Your task to perform on an android device: install app "DoorDash - Food Delivery" Image 0: 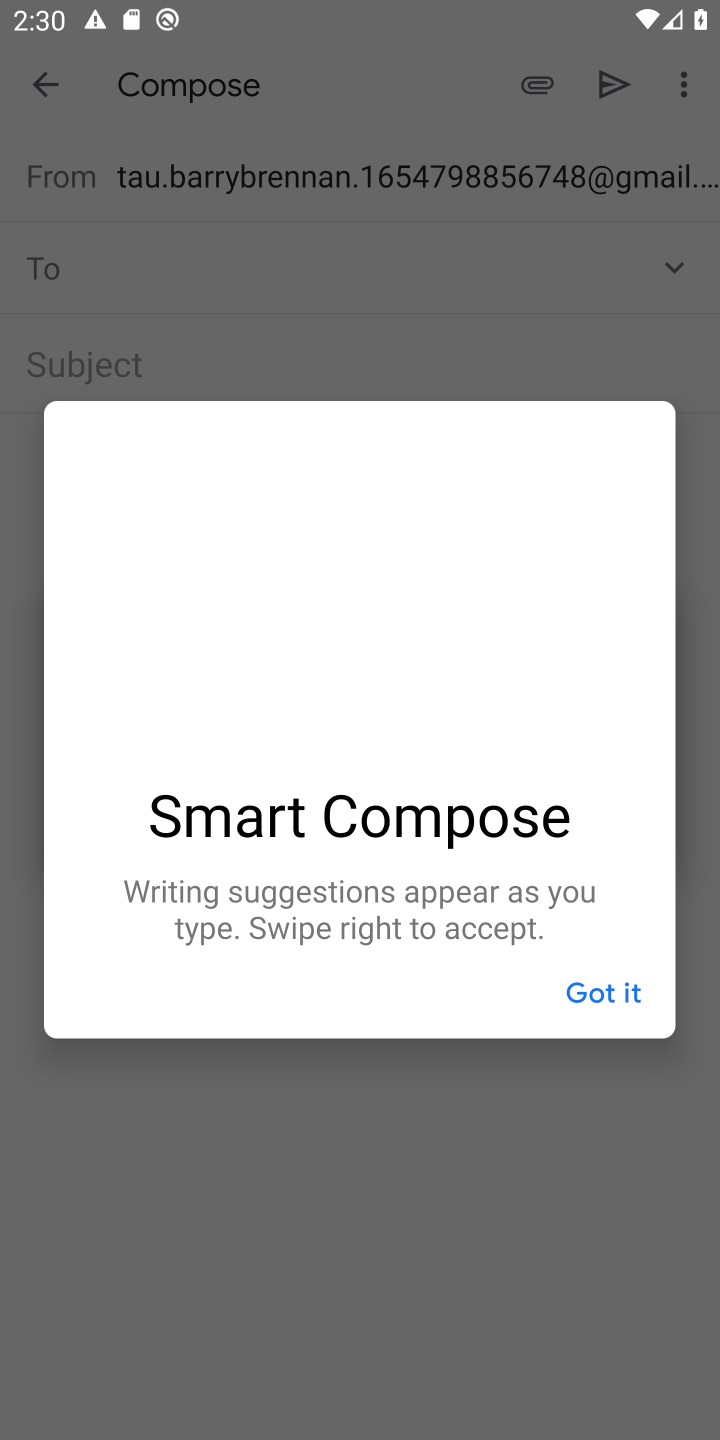
Step 0: press home button
Your task to perform on an android device: install app "DoorDash - Food Delivery" Image 1: 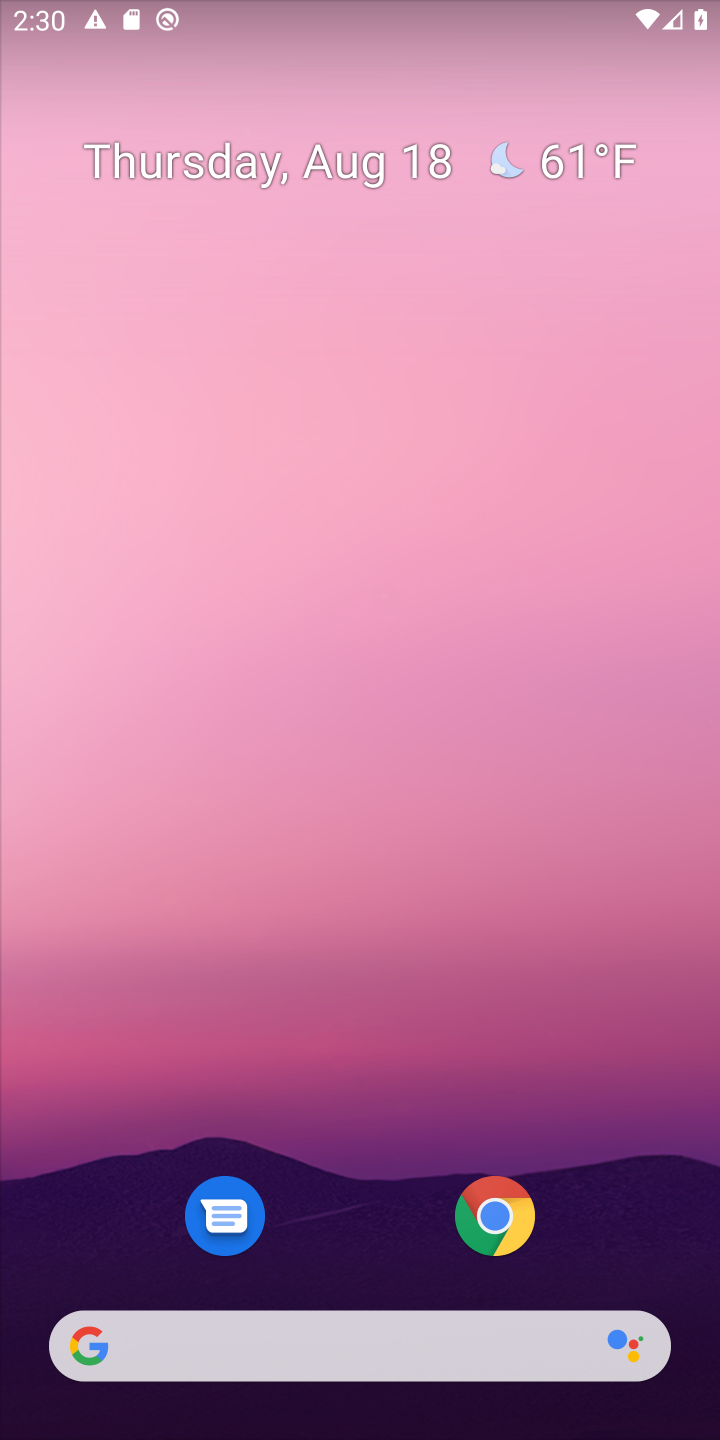
Step 1: drag from (637, 1264) to (594, 217)
Your task to perform on an android device: install app "DoorDash - Food Delivery" Image 2: 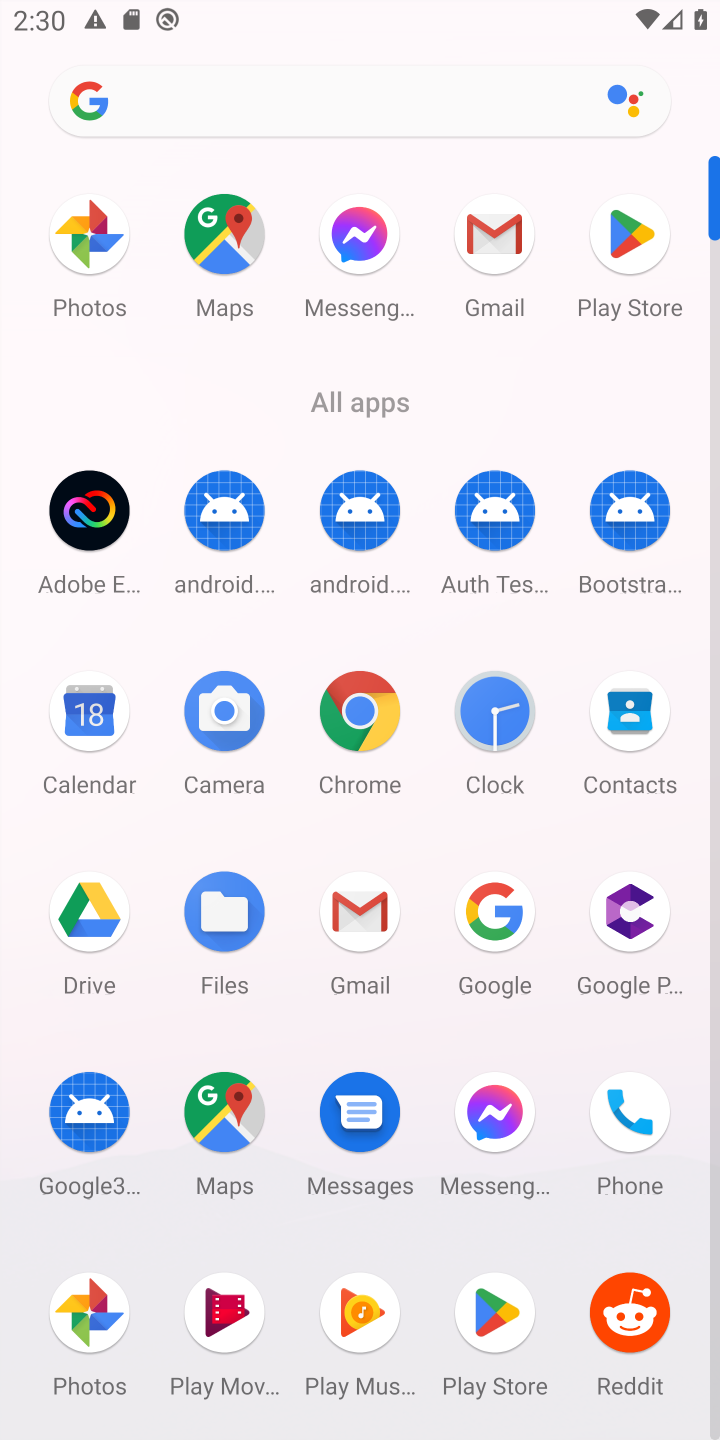
Step 2: click (497, 1310)
Your task to perform on an android device: install app "DoorDash - Food Delivery" Image 3: 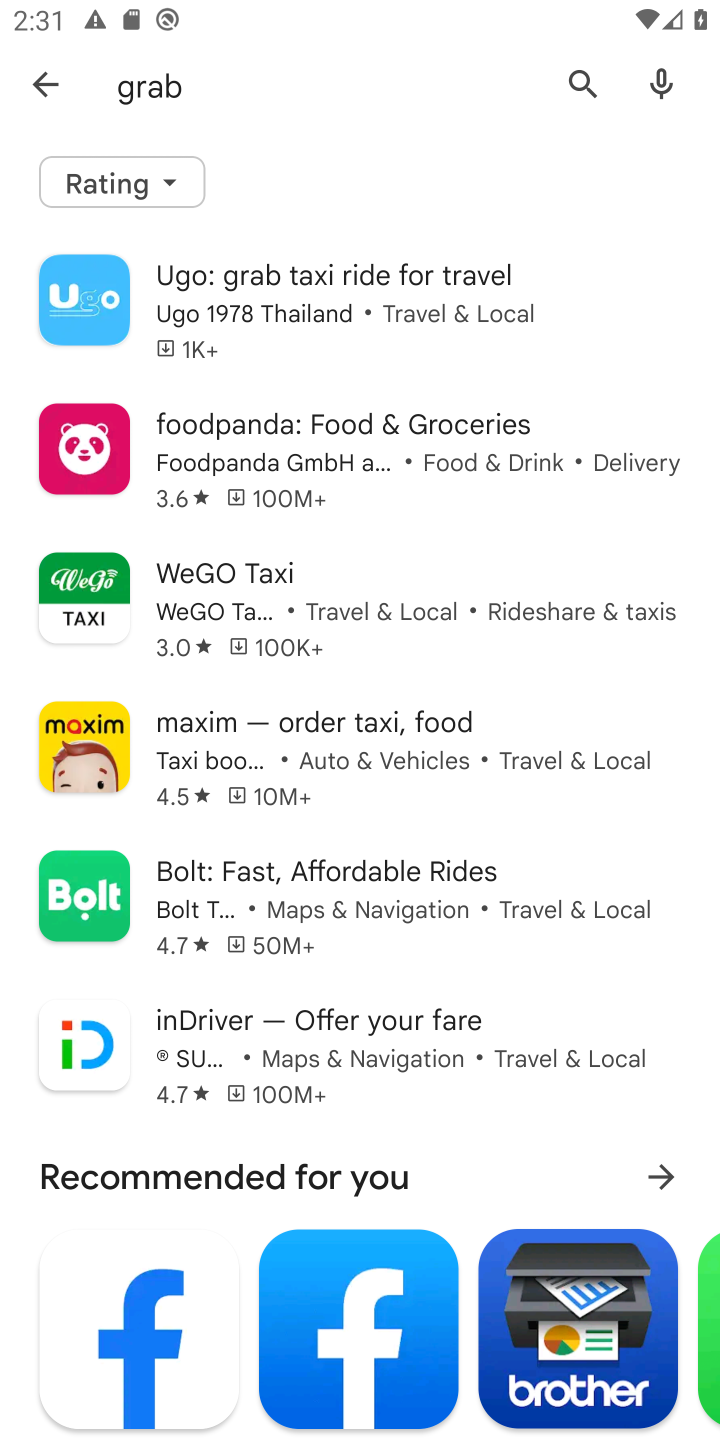
Step 3: click (567, 72)
Your task to perform on an android device: install app "DoorDash - Food Delivery" Image 4: 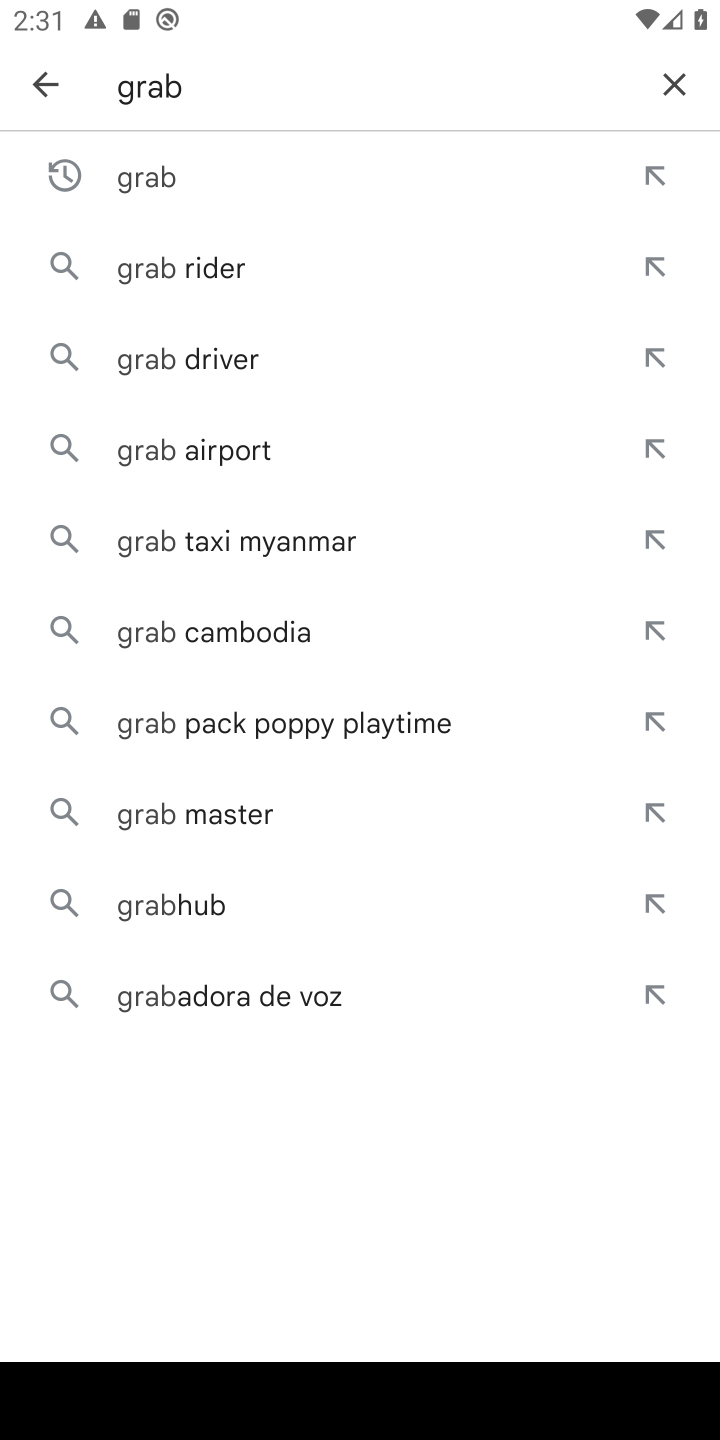
Step 4: click (677, 83)
Your task to perform on an android device: install app "DoorDash - Food Delivery" Image 5: 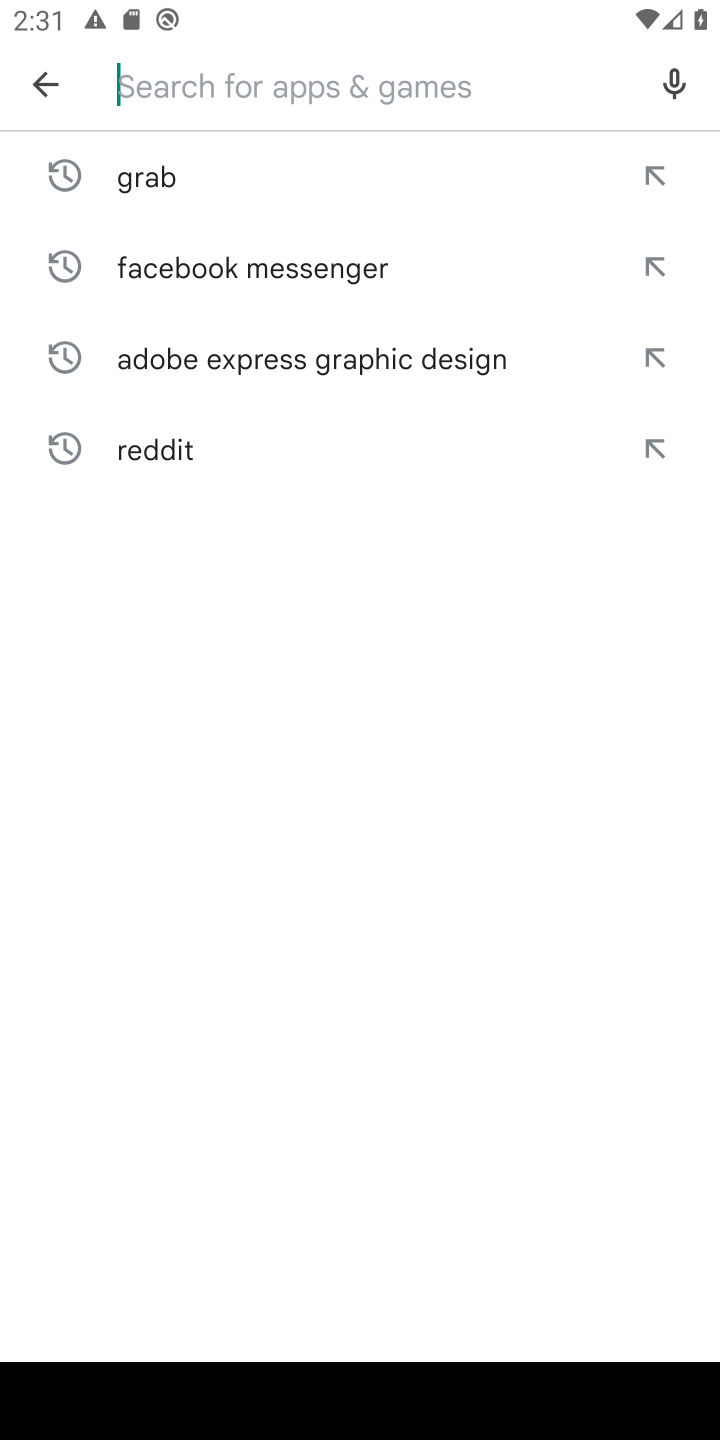
Step 5: type "DoorDash - Food Delivery"
Your task to perform on an android device: install app "DoorDash - Food Delivery" Image 6: 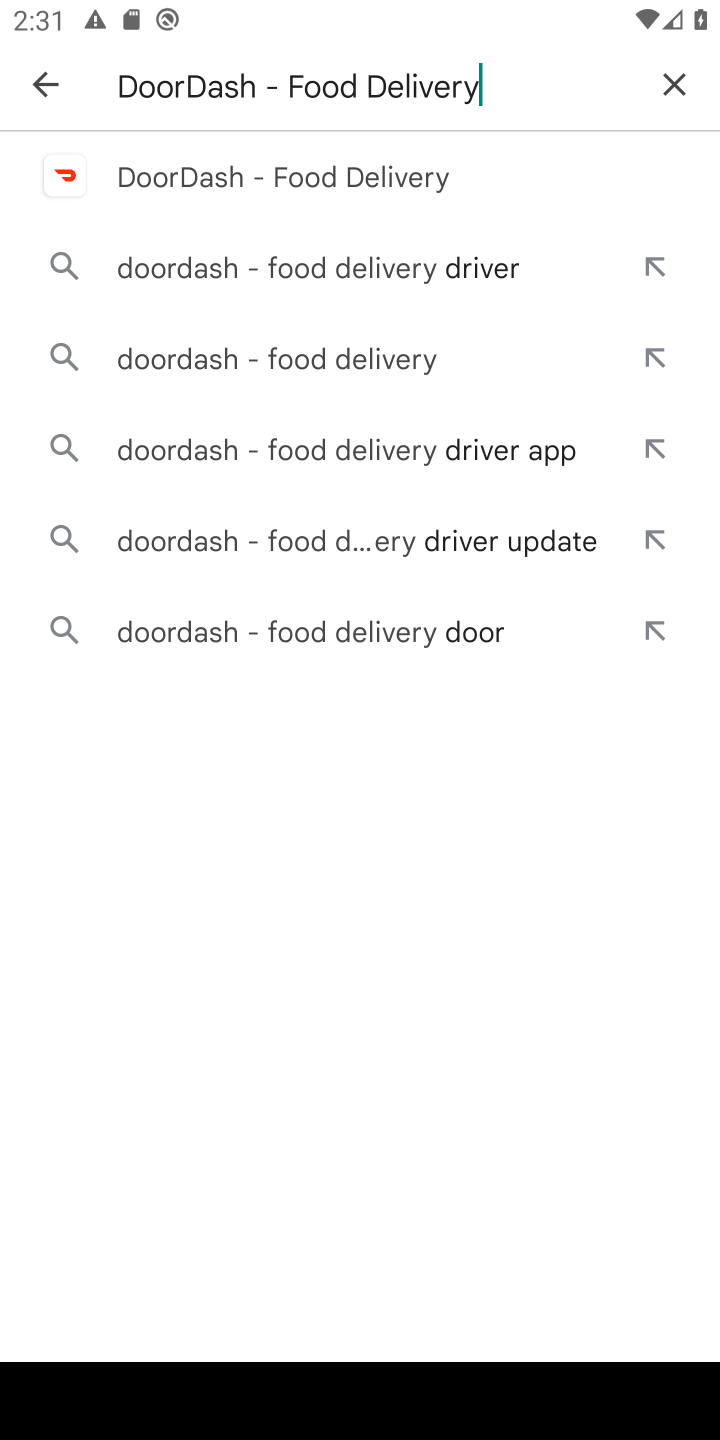
Step 6: click (245, 170)
Your task to perform on an android device: install app "DoorDash - Food Delivery" Image 7: 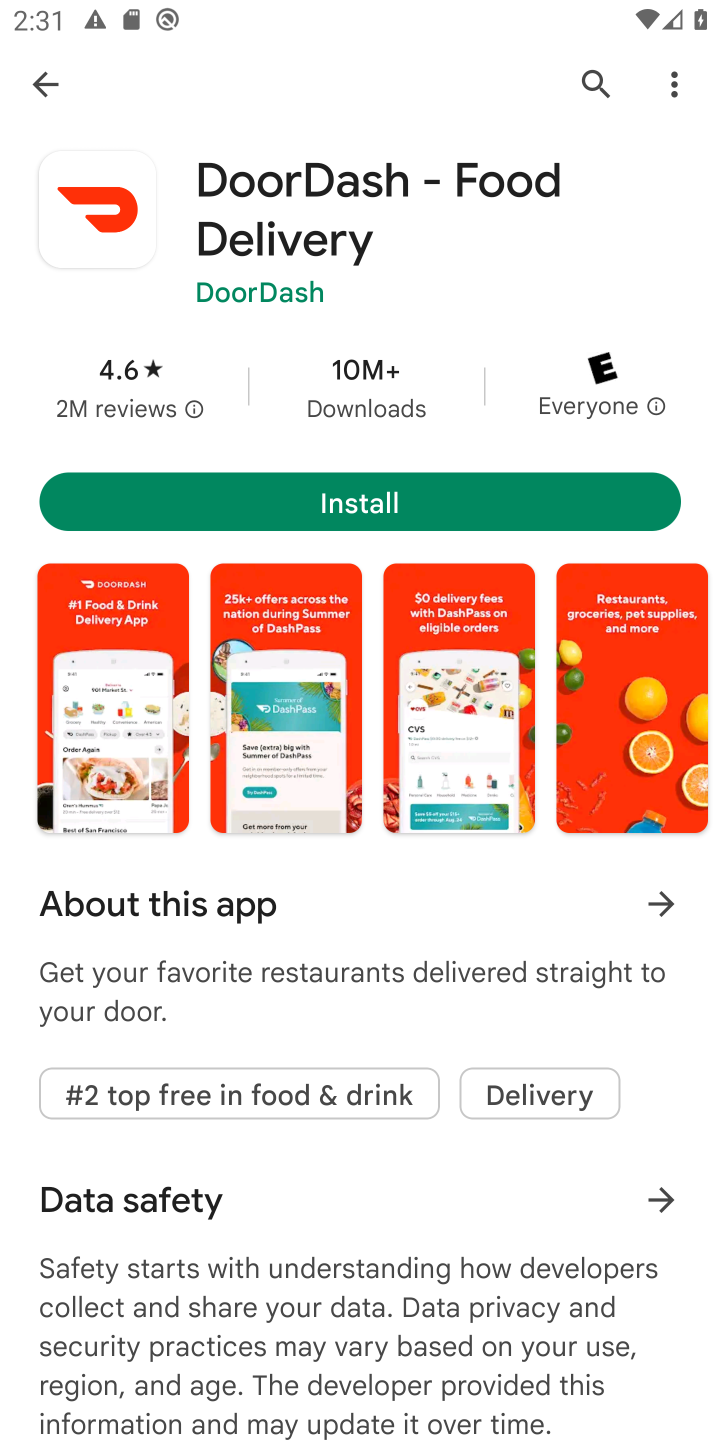
Step 7: click (365, 504)
Your task to perform on an android device: install app "DoorDash - Food Delivery" Image 8: 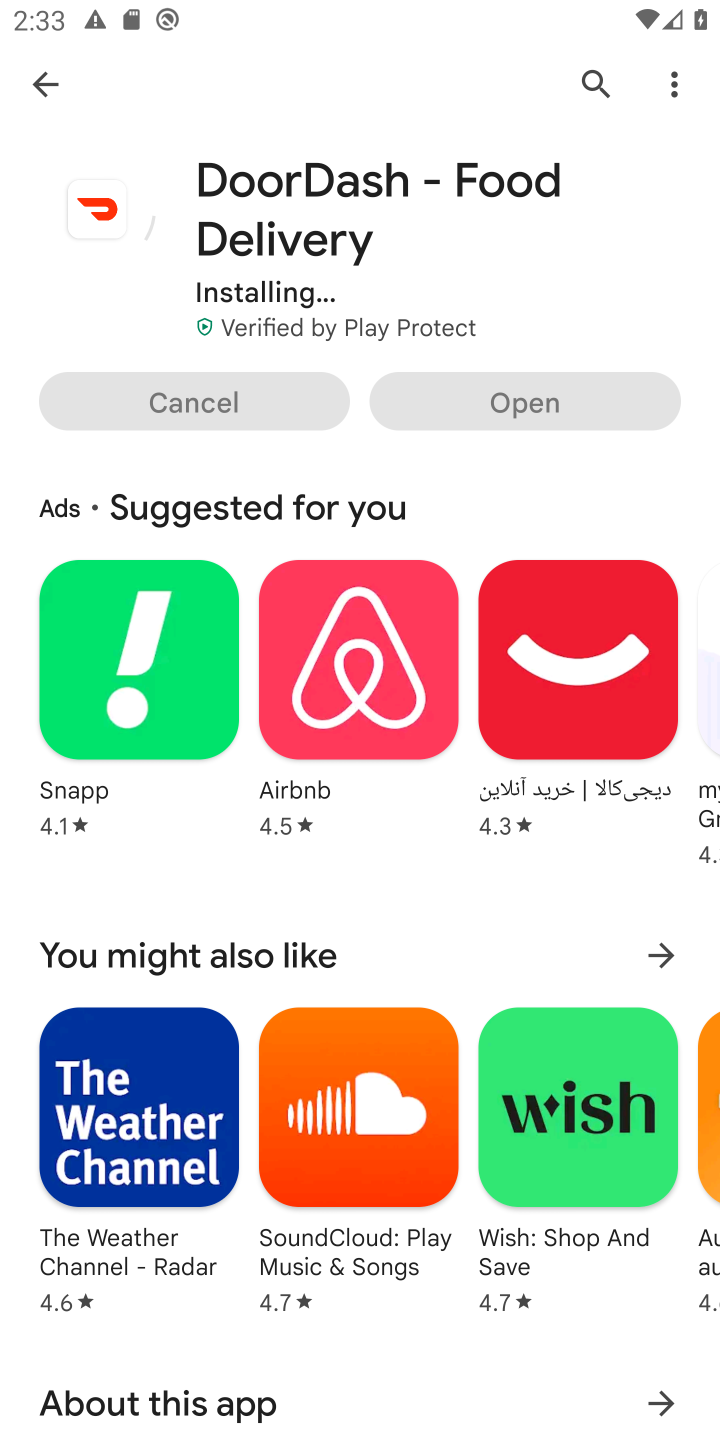
Step 8: task complete